Your task to perform on an android device: toggle sleep mode Image 0: 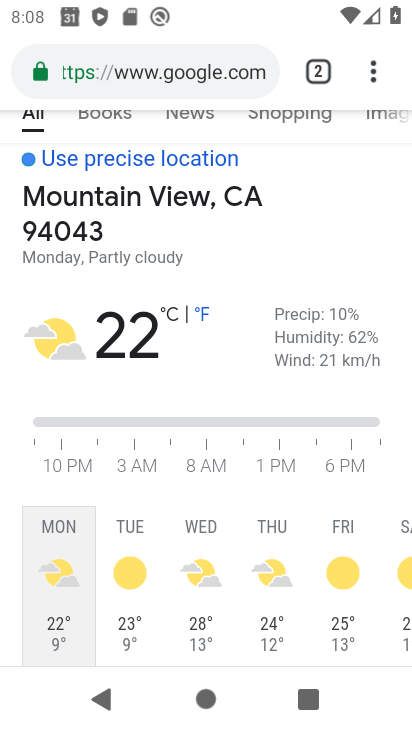
Step 0: press home button
Your task to perform on an android device: toggle sleep mode Image 1: 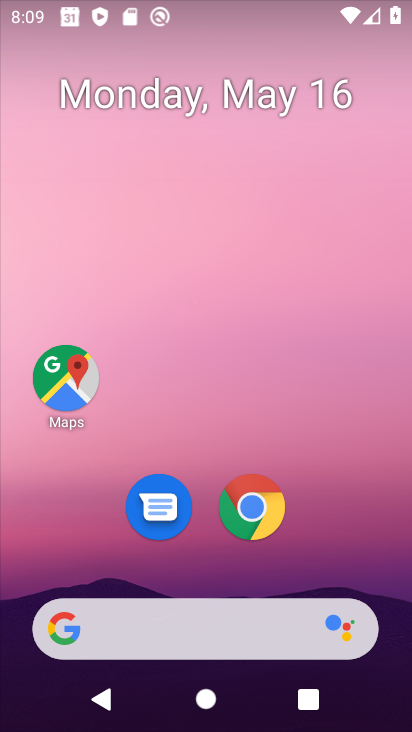
Step 1: drag from (334, 444) to (317, 190)
Your task to perform on an android device: toggle sleep mode Image 2: 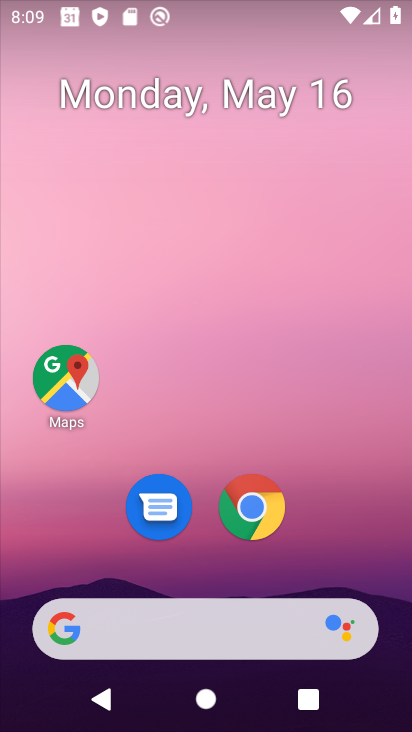
Step 2: drag from (322, 526) to (320, 128)
Your task to perform on an android device: toggle sleep mode Image 3: 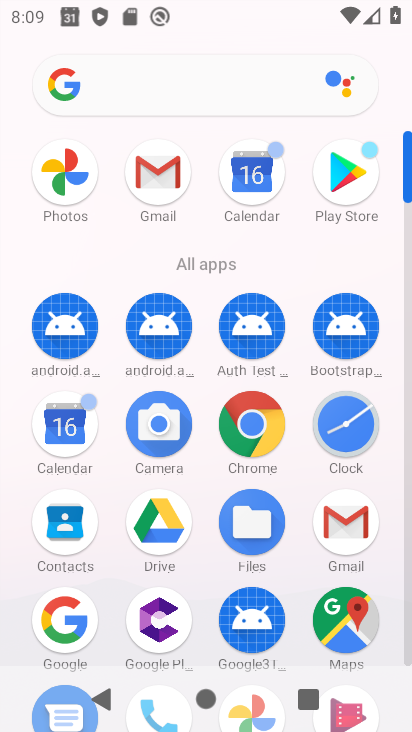
Step 3: drag from (283, 232) to (306, 0)
Your task to perform on an android device: toggle sleep mode Image 4: 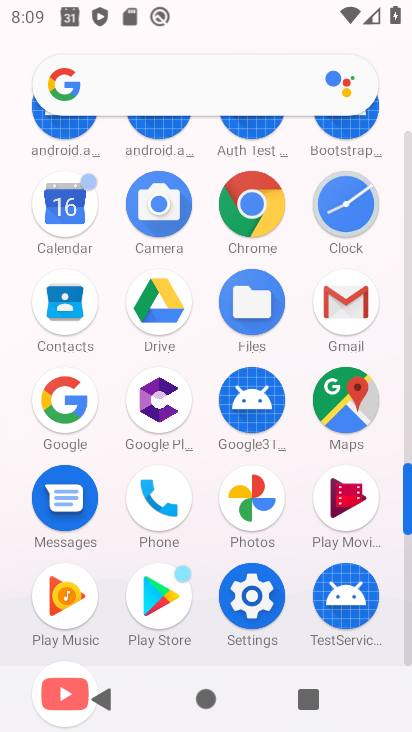
Step 4: click (256, 612)
Your task to perform on an android device: toggle sleep mode Image 5: 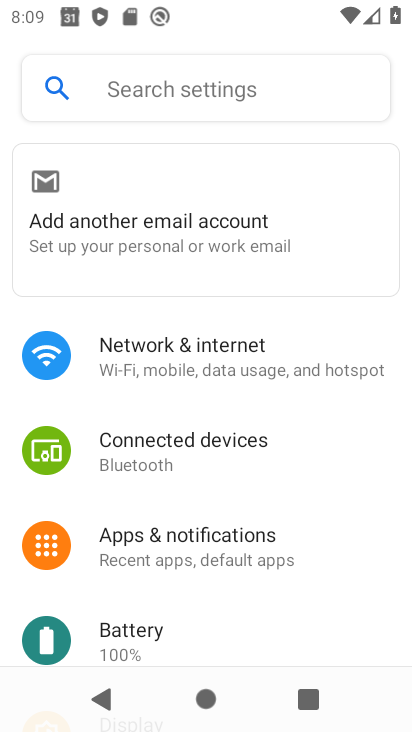
Step 5: drag from (299, 611) to (306, 274)
Your task to perform on an android device: toggle sleep mode Image 6: 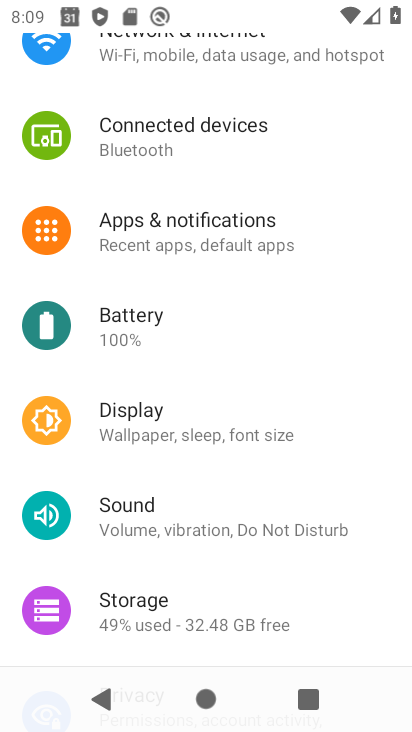
Step 6: click (132, 410)
Your task to perform on an android device: toggle sleep mode Image 7: 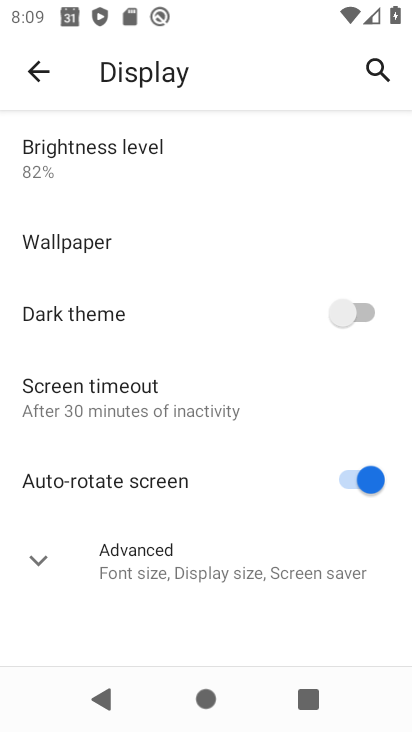
Step 7: click (167, 435)
Your task to perform on an android device: toggle sleep mode Image 8: 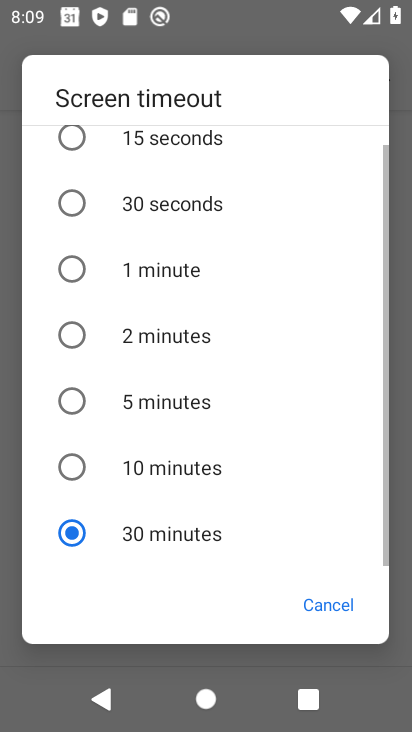
Step 8: click (146, 427)
Your task to perform on an android device: toggle sleep mode Image 9: 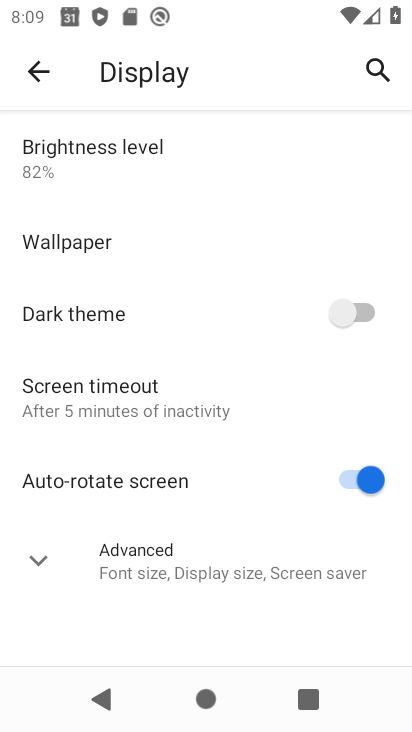
Step 9: click (126, 395)
Your task to perform on an android device: toggle sleep mode Image 10: 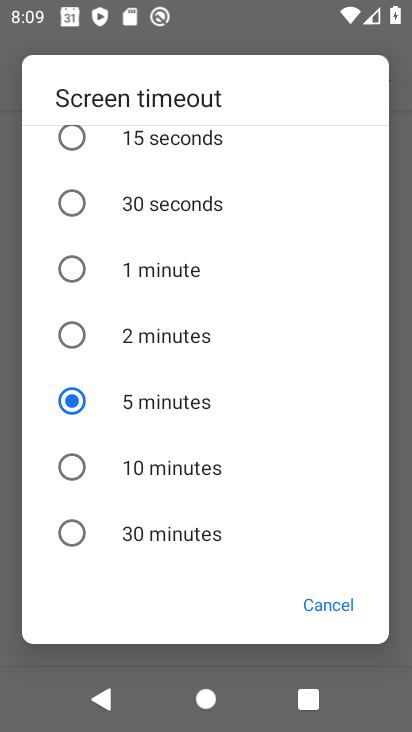
Step 10: click (147, 341)
Your task to perform on an android device: toggle sleep mode Image 11: 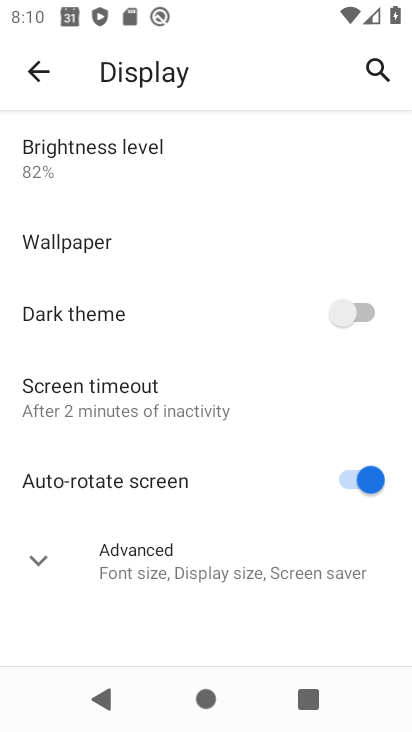
Step 11: task complete